Your task to perform on an android device: toggle notifications settings in the gmail app Image 0: 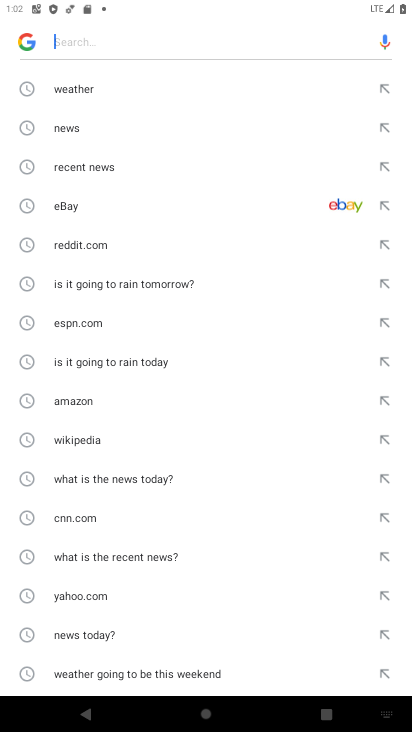
Step 0: press home button
Your task to perform on an android device: toggle notifications settings in the gmail app Image 1: 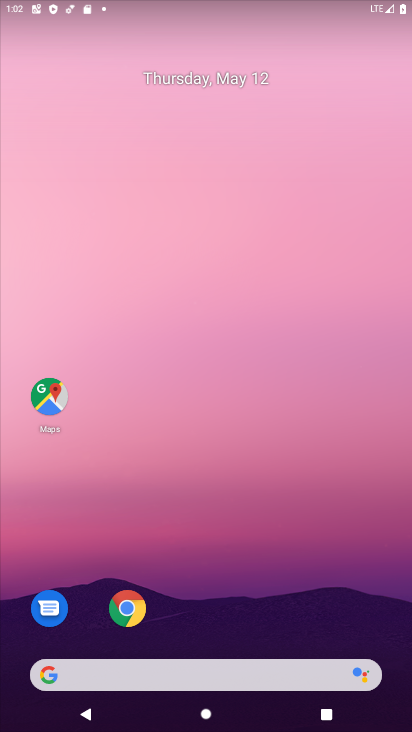
Step 1: drag from (231, 633) to (227, 33)
Your task to perform on an android device: toggle notifications settings in the gmail app Image 2: 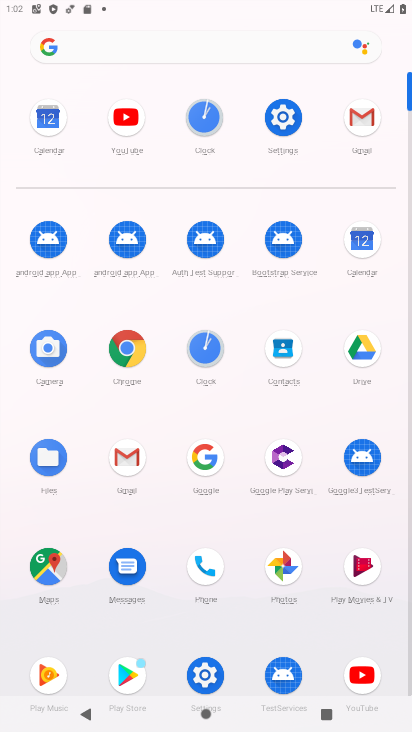
Step 2: click (366, 118)
Your task to perform on an android device: toggle notifications settings in the gmail app Image 3: 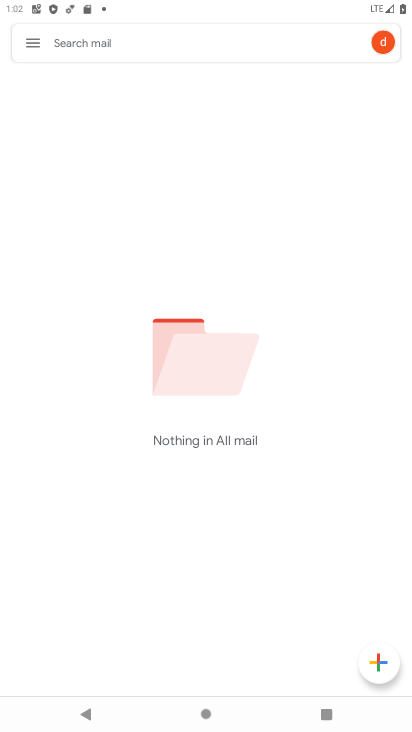
Step 3: click (30, 46)
Your task to perform on an android device: toggle notifications settings in the gmail app Image 4: 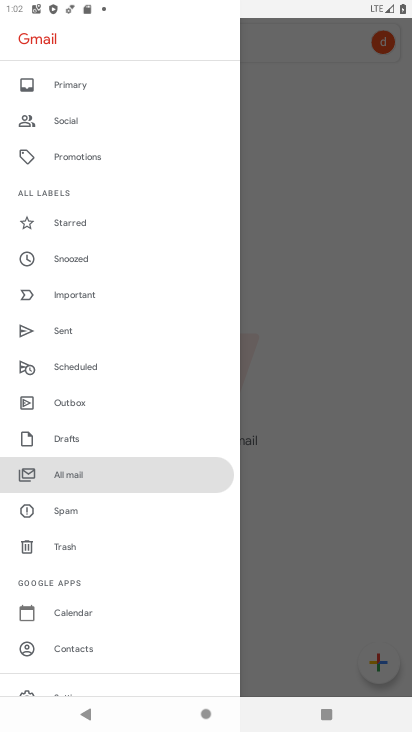
Step 4: drag from (141, 653) to (155, 428)
Your task to perform on an android device: toggle notifications settings in the gmail app Image 5: 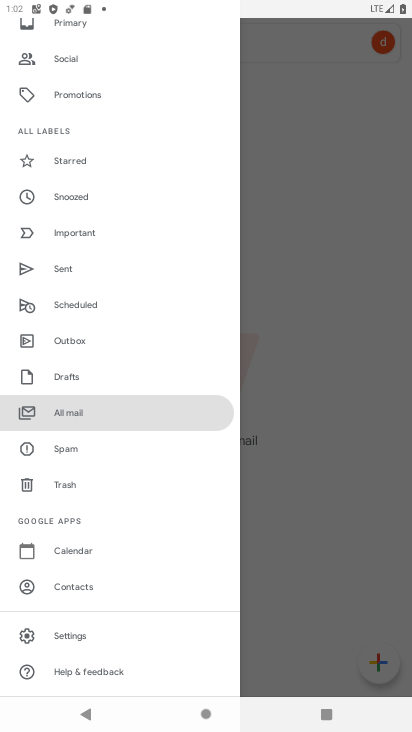
Step 5: click (68, 631)
Your task to perform on an android device: toggle notifications settings in the gmail app Image 6: 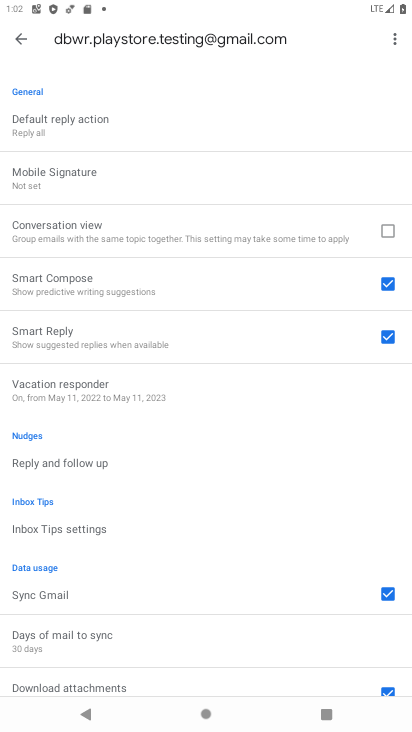
Step 6: click (12, 44)
Your task to perform on an android device: toggle notifications settings in the gmail app Image 7: 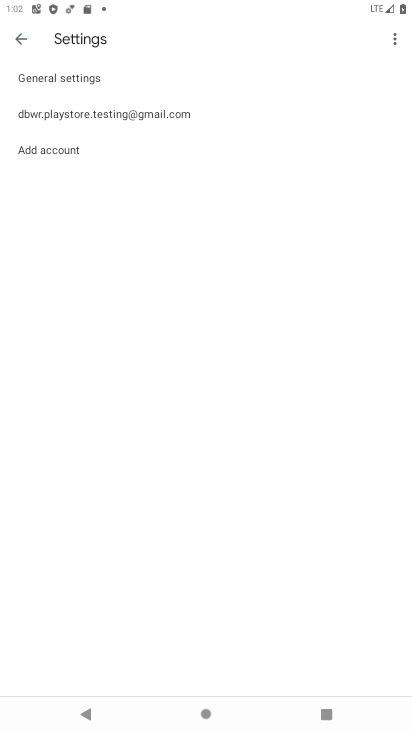
Step 7: click (56, 82)
Your task to perform on an android device: toggle notifications settings in the gmail app Image 8: 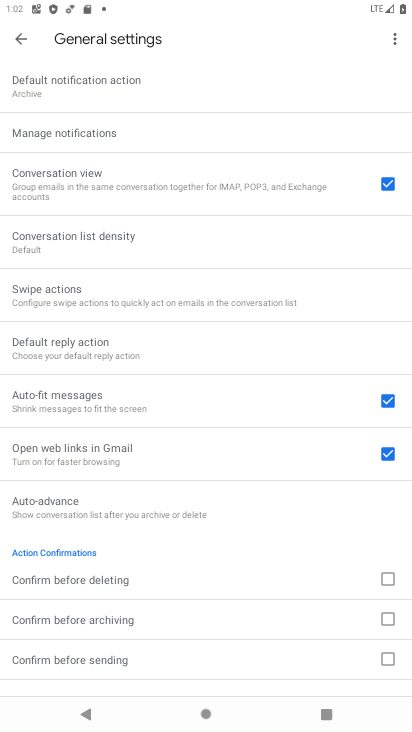
Step 8: click (77, 137)
Your task to perform on an android device: toggle notifications settings in the gmail app Image 9: 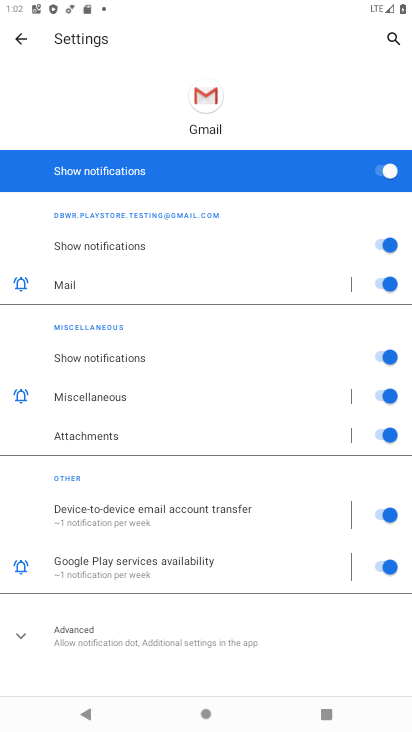
Step 9: click (394, 170)
Your task to perform on an android device: toggle notifications settings in the gmail app Image 10: 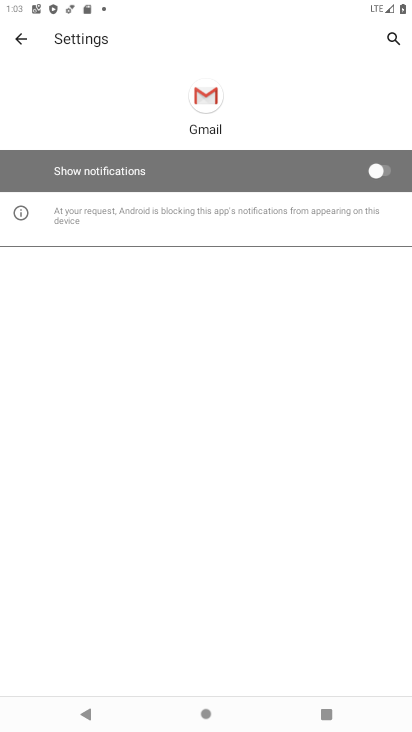
Step 10: task complete